Your task to perform on an android device: move an email to a new category in the gmail app Image 0: 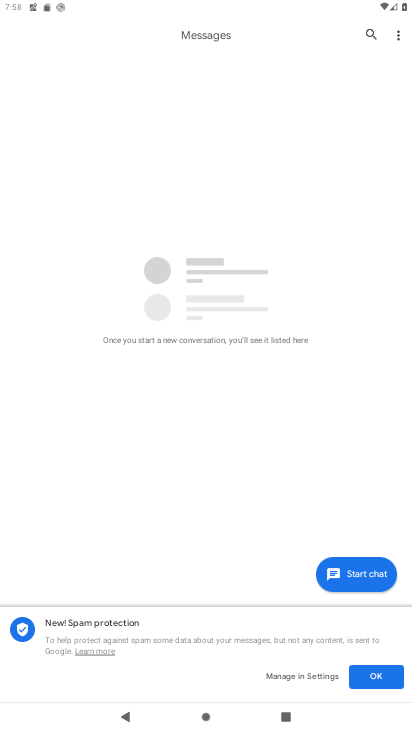
Step 0: press home button
Your task to perform on an android device: move an email to a new category in the gmail app Image 1: 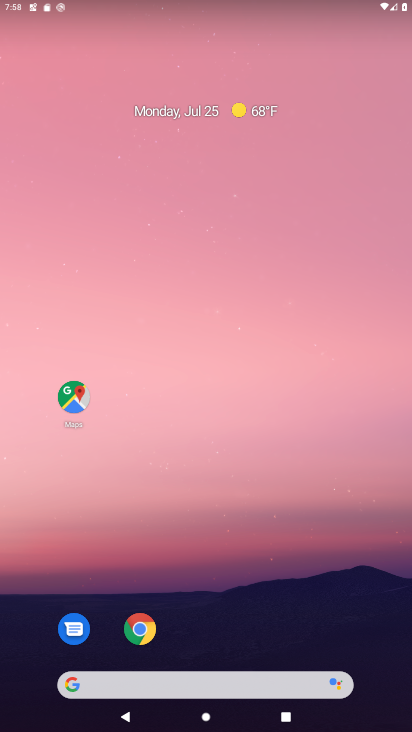
Step 1: drag from (258, 612) to (258, 273)
Your task to perform on an android device: move an email to a new category in the gmail app Image 2: 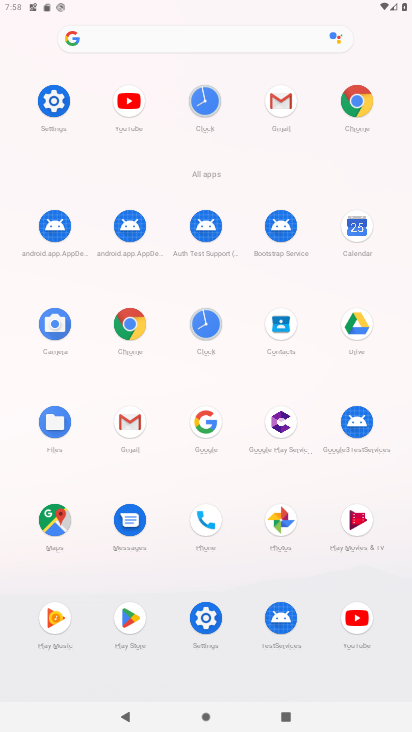
Step 2: click (122, 413)
Your task to perform on an android device: move an email to a new category in the gmail app Image 3: 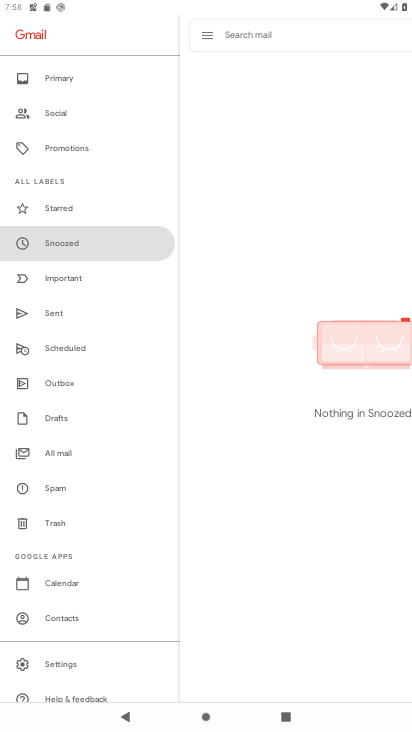
Step 3: click (62, 450)
Your task to perform on an android device: move an email to a new category in the gmail app Image 4: 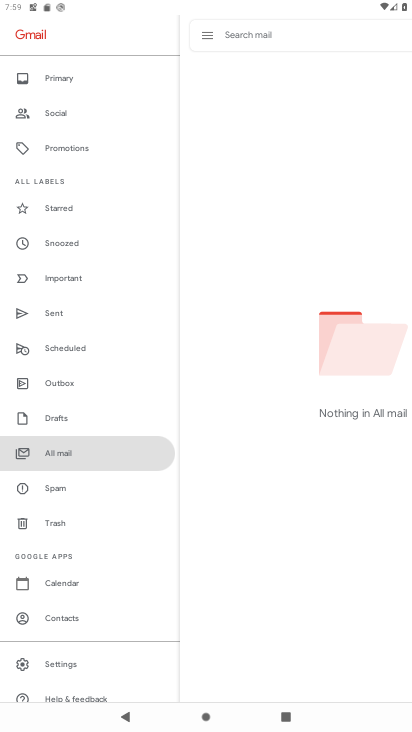
Step 4: task complete